Your task to perform on an android device: See recent photos Image 0: 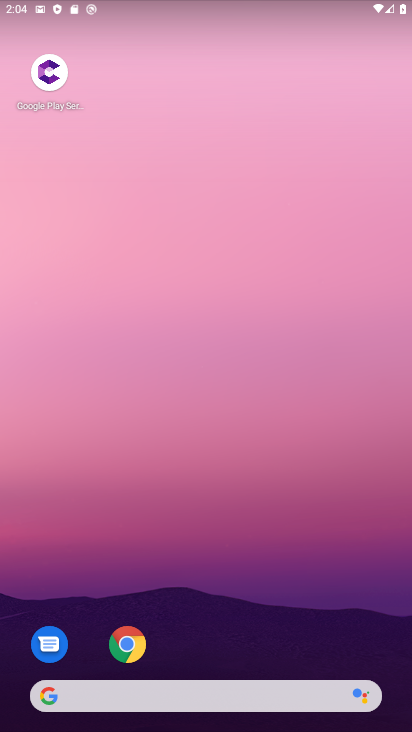
Step 0: drag from (230, 661) to (302, 5)
Your task to perform on an android device: See recent photos Image 1: 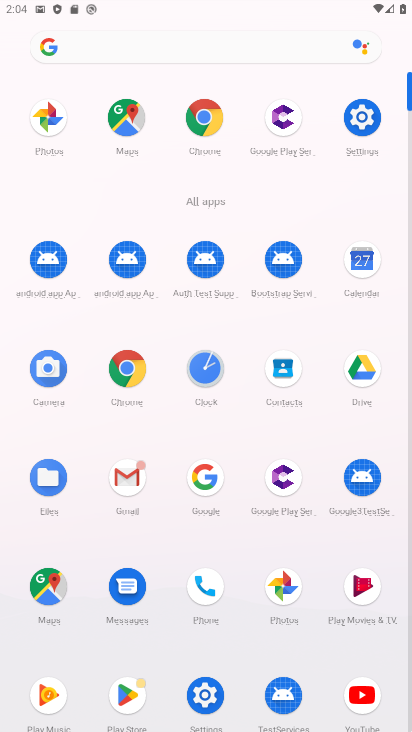
Step 1: click (282, 592)
Your task to perform on an android device: See recent photos Image 2: 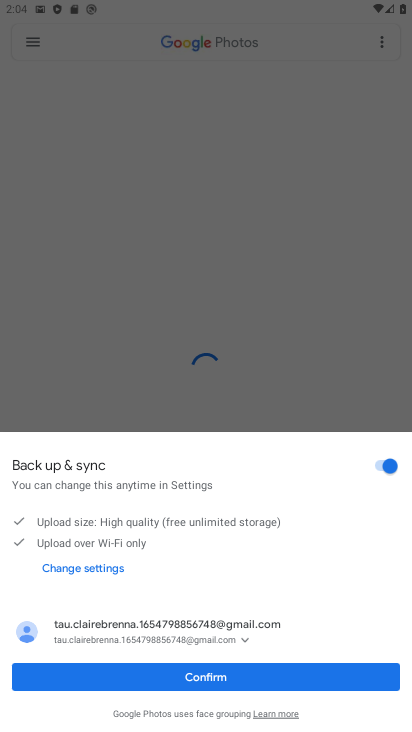
Step 2: click (221, 676)
Your task to perform on an android device: See recent photos Image 3: 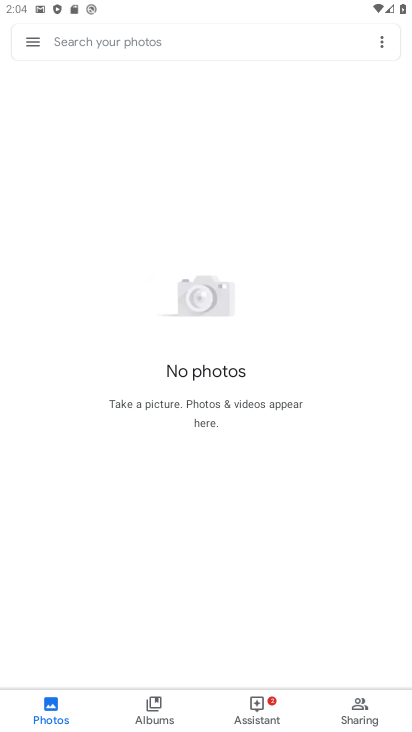
Step 3: task complete